Your task to perform on an android device: turn off sleep mode Image 0: 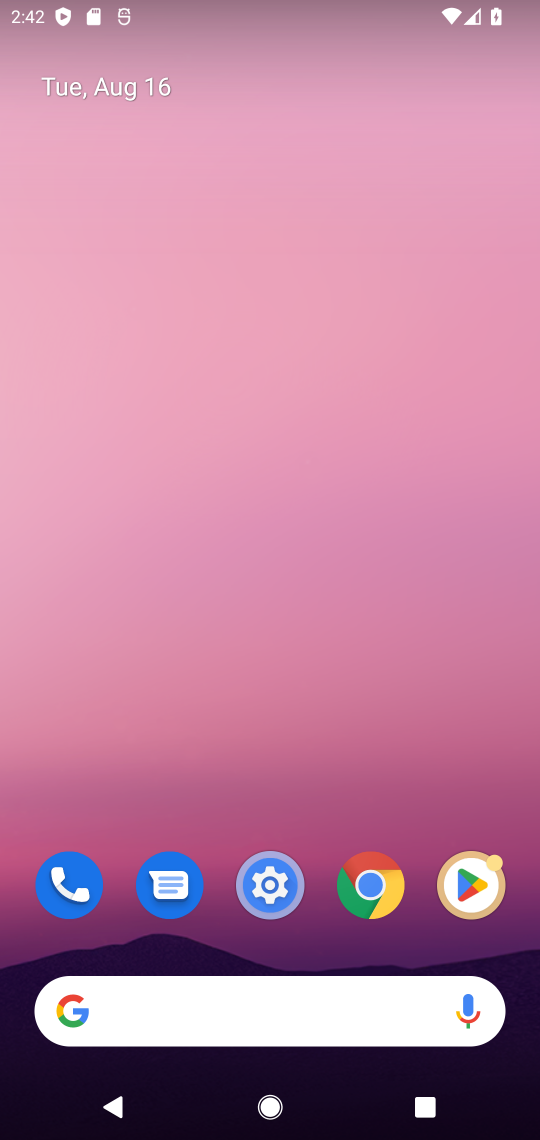
Step 0: drag from (388, 720) to (503, 627)
Your task to perform on an android device: turn off sleep mode Image 1: 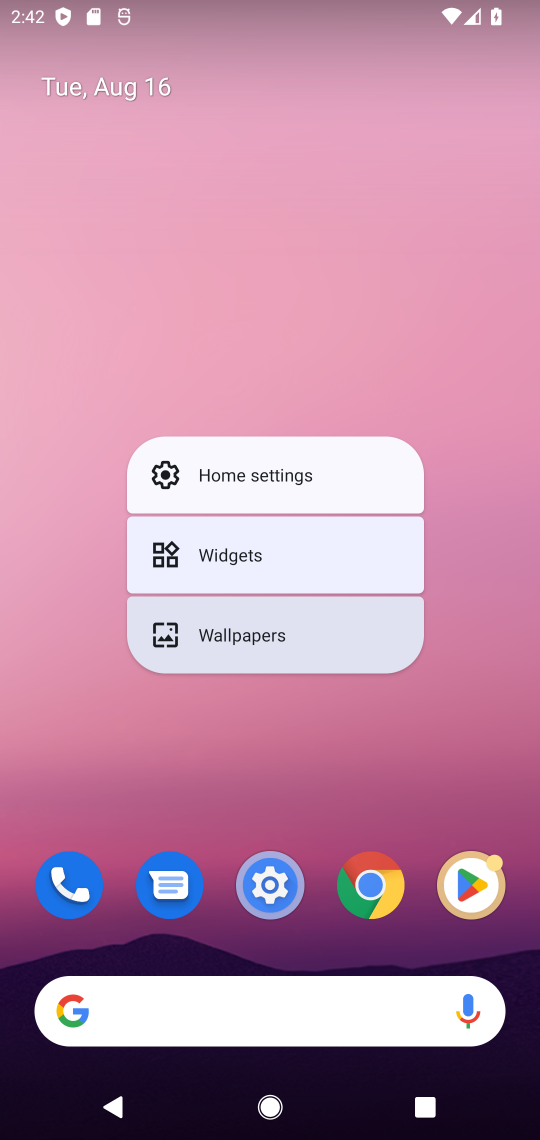
Step 1: drag from (193, 822) to (196, 507)
Your task to perform on an android device: turn off sleep mode Image 2: 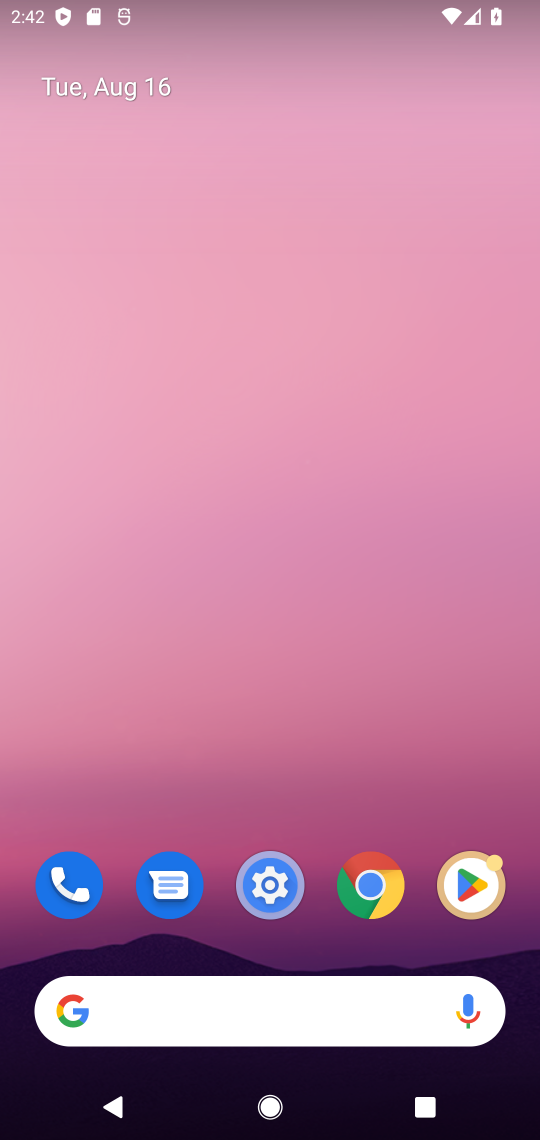
Step 2: drag from (511, 682) to (516, 475)
Your task to perform on an android device: turn off sleep mode Image 3: 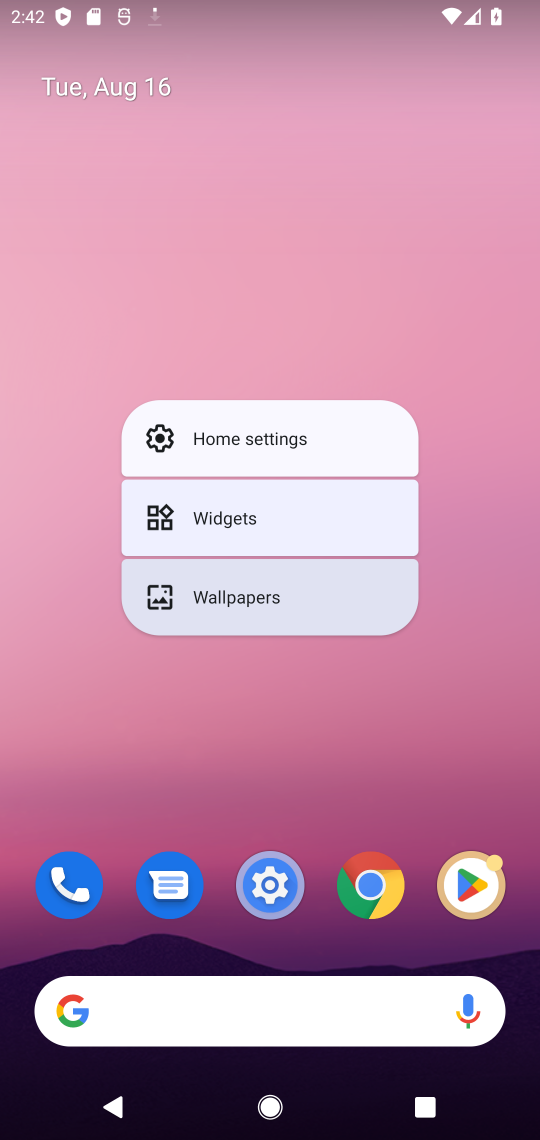
Step 3: drag from (192, 698) to (373, 304)
Your task to perform on an android device: turn off sleep mode Image 4: 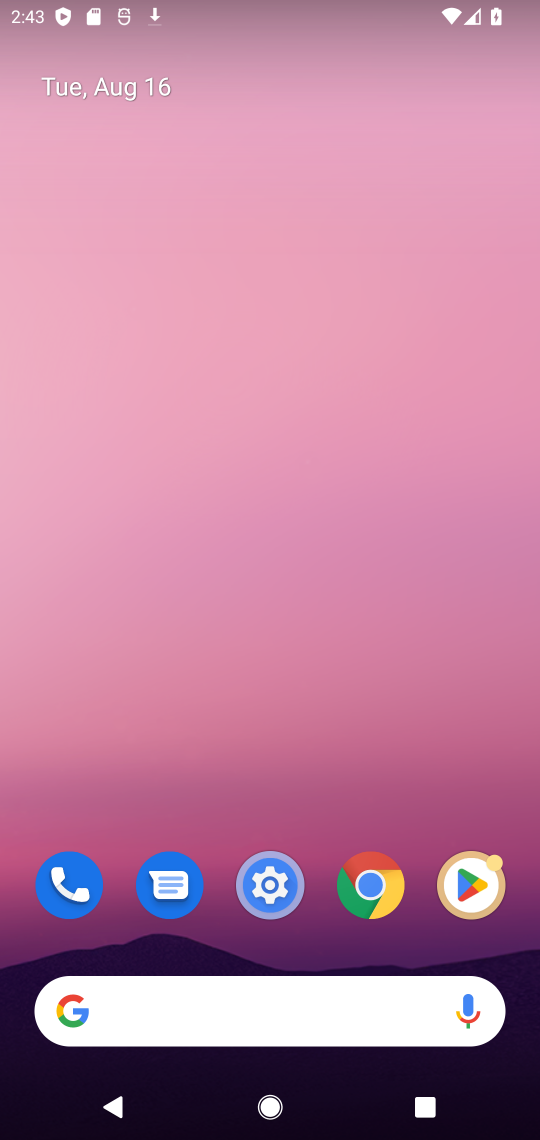
Step 4: drag from (215, 946) to (276, 213)
Your task to perform on an android device: turn off sleep mode Image 5: 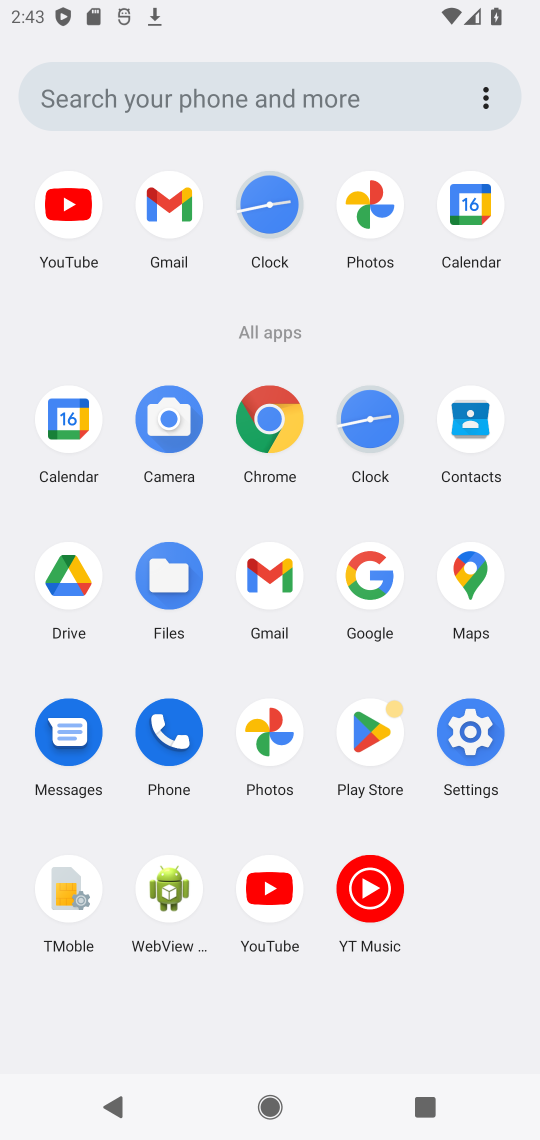
Step 5: click (462, 708)
Your task to perform on an android device: turn off sleep mode Image 6: 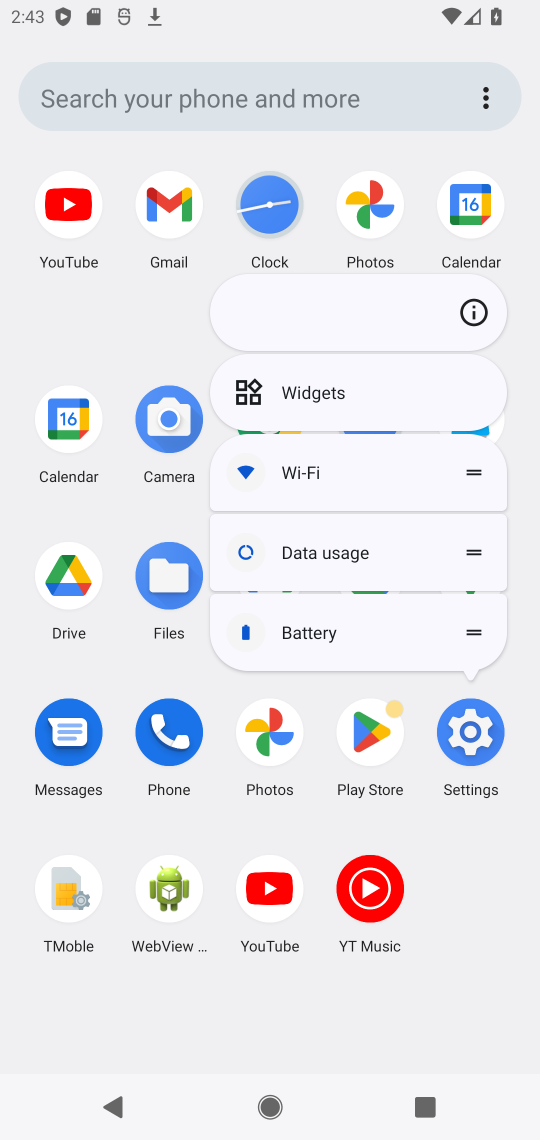
Step 6: click (462, 708)
Your task to perform on an android device: turn off sleep mode Image 7: 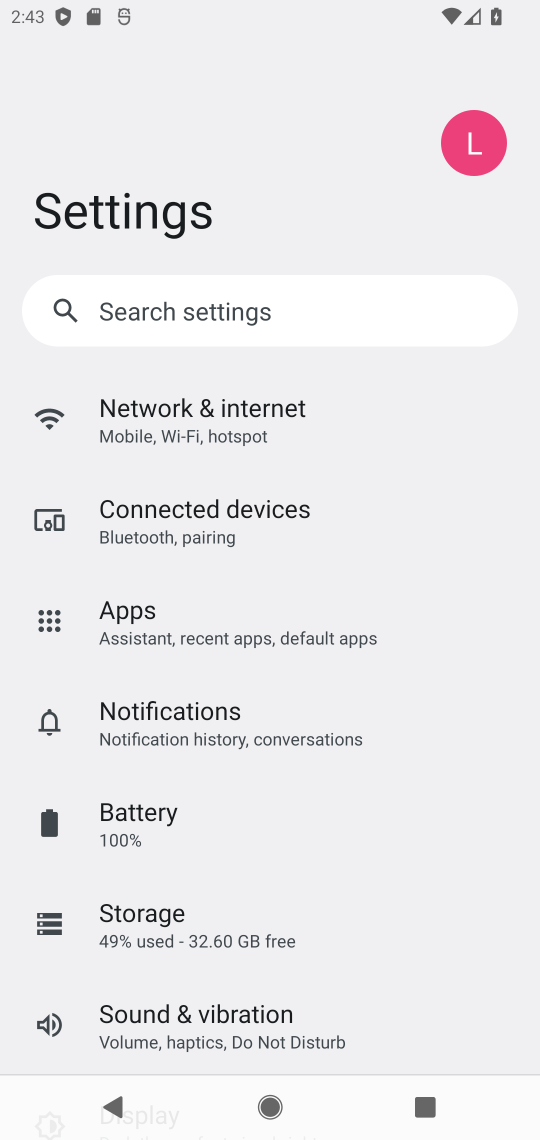
Step 7: task complete